Your task to perform on an android device: turn on data saver in the chrome app Image 0: 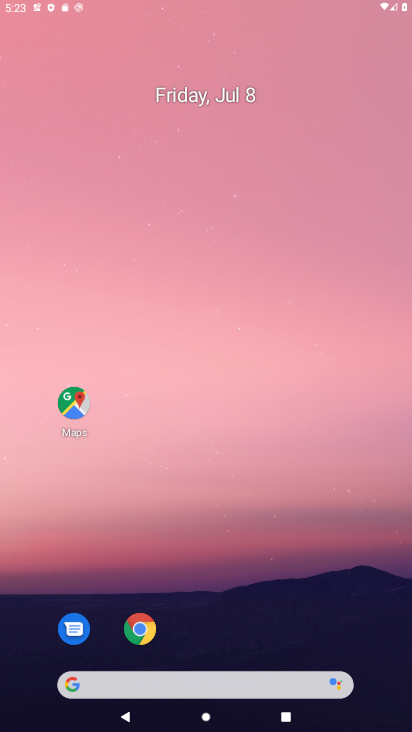
Step 0: press home button
Your task to perform on an android device: turn on data saver in the chrome app Image 1: 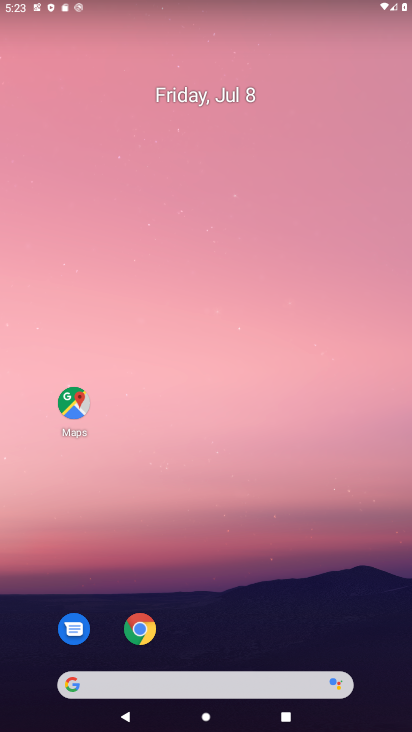
Step 1: drag from (255, 607) to (225, 107)
Your task to perform on an android device: turn on data saver in the chrome app Image 2: 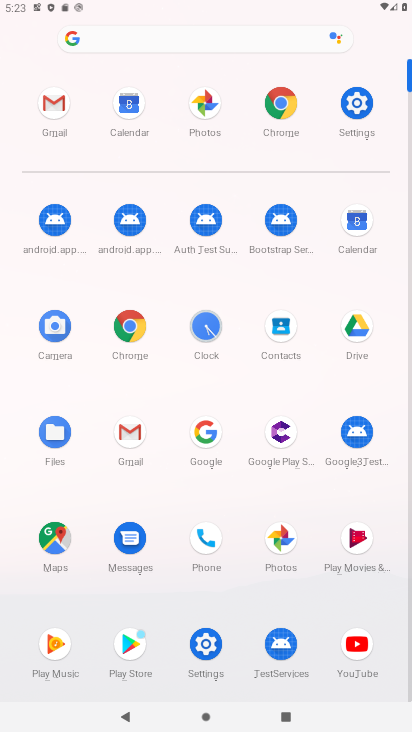
Step 2: click (282, 109)
Your task to perform on an android device: turn on data saver in the chrome app Image 3: 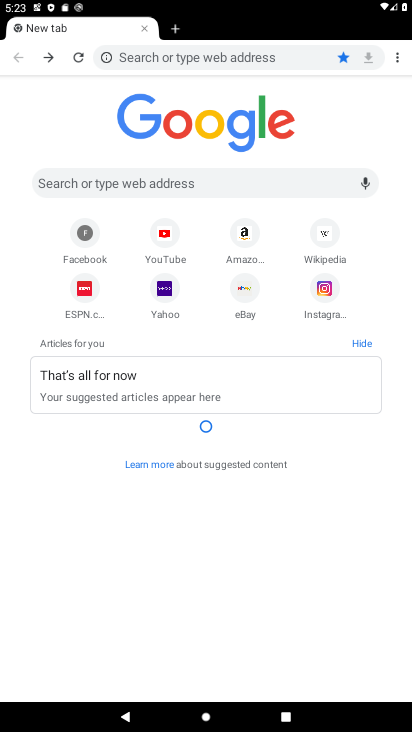
Step 3: drag from (398, 57) to (286, 265)
Your task to perform on an android device: turn on data saver in the chrome app Image 4: 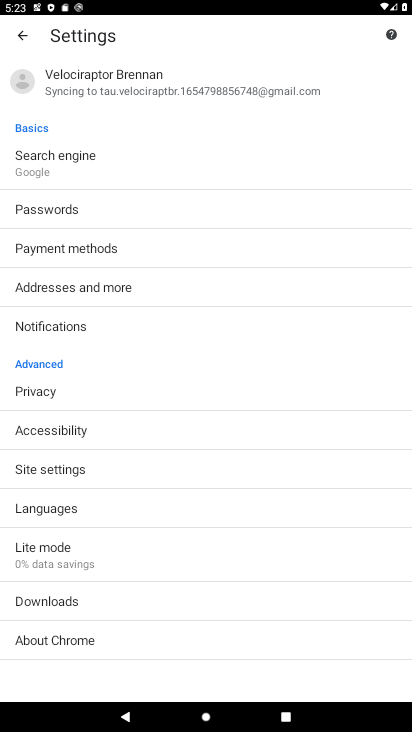
Step 4: click (52, 555)
Your task to perform on an android device: turn on data saver in the chrome app Image 5: 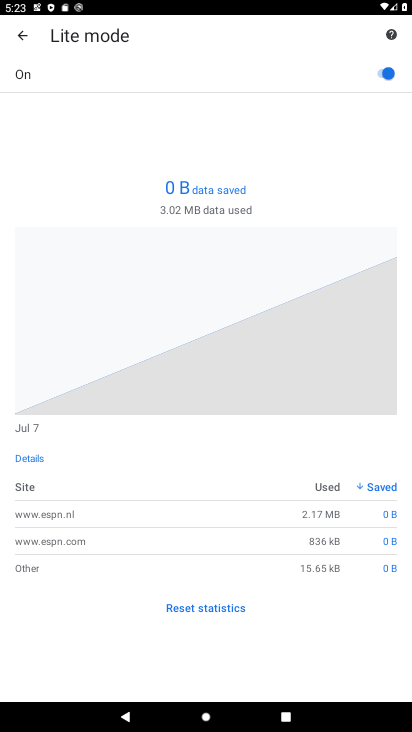
Step 5: task complete